Your task to perform on an android device: turn on priority inbox in the gmail app Image 0: 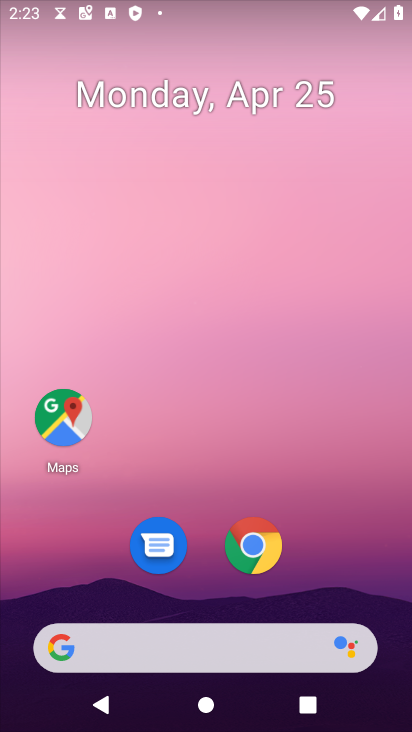
Step 0: drag from (32, 203) to (315, 167)
Your task to perform on an android device: turn on priority inbox in the gmail app Image 1: 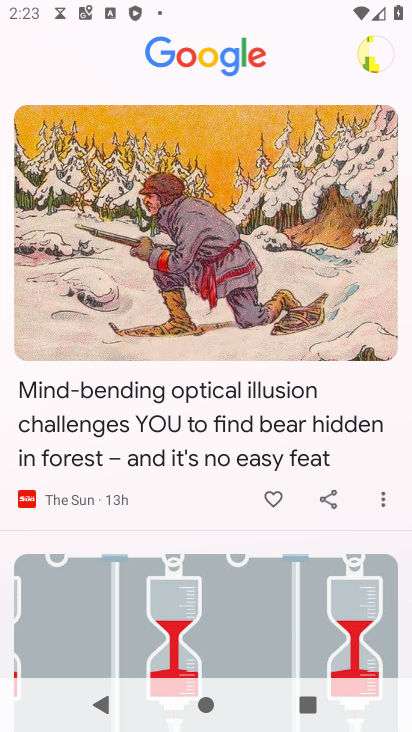
Step 1: press home button
Your task to perform on an android device: turn on priority inbox in the gmail app Image 2: 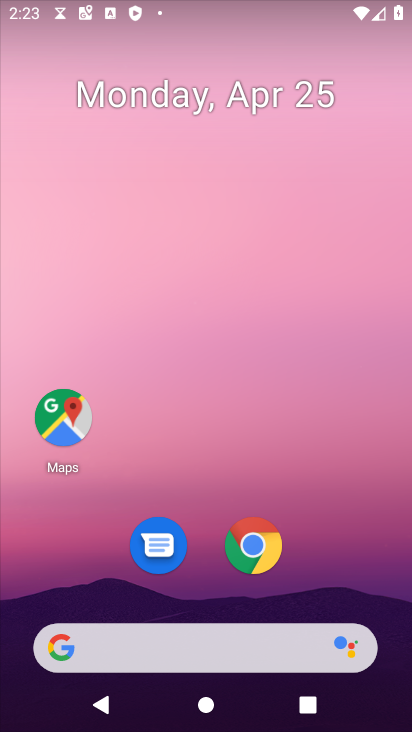
Step 2: drag from (197, 642) to (221, 10)
Your task to perform on an android device: turn on priority inbox in the gmail app Image 3: 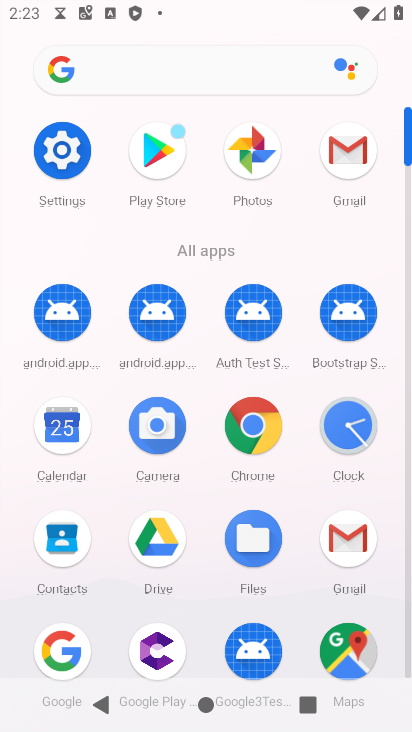
Step 3: click (358, 147)
Your task to perform on an android device: turn on priority inbox in the gmail app Image 4: 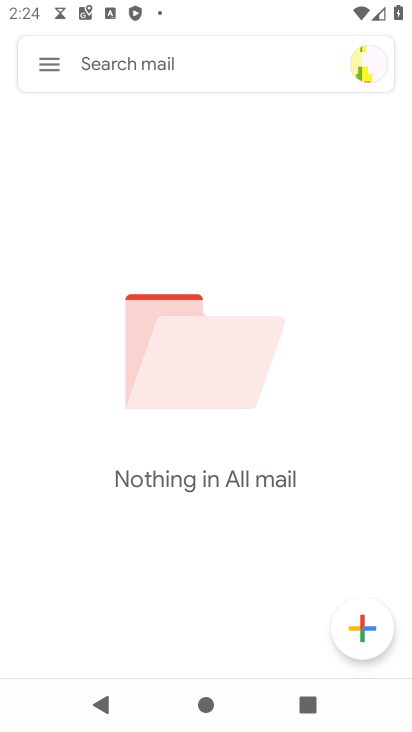
Step 4: click (38, 62)
Your task to perform on an android device: turn on priority inbox in the gmail app Image 5: 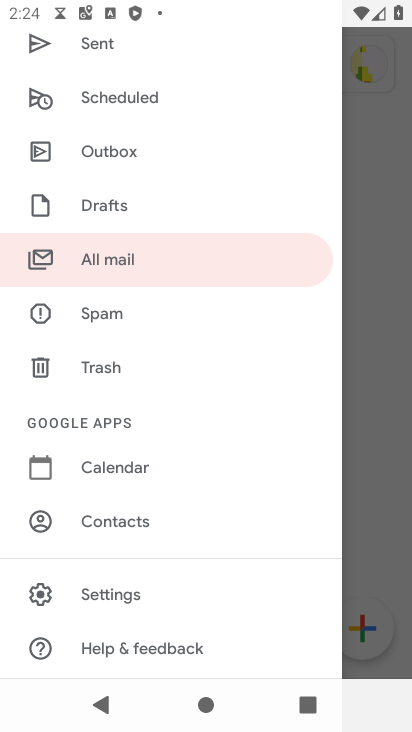
Step 5: click (99, 589)
Your task to perform on an android device: turn on priority inbox in the gmail app Image 6: 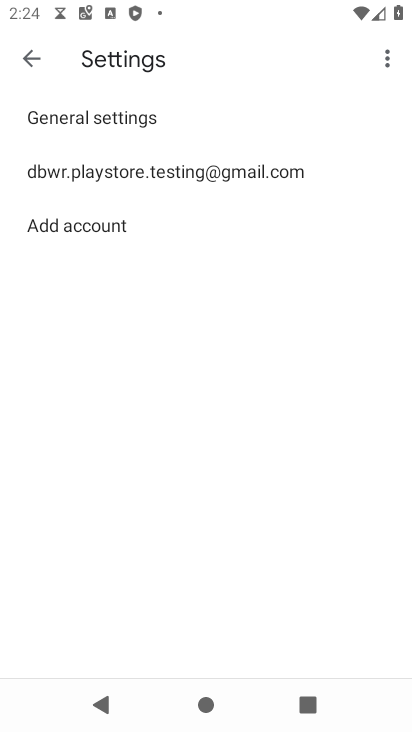
Step 6: click (119, 169)
Your task to perform on an android device: turn on priority inbox in the gmail app Image 7: 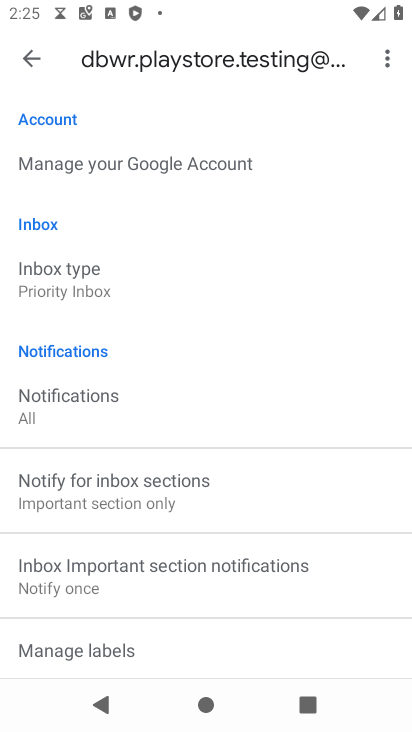
Step 7: click (116, 283)
Your task to perform on an android device: turn on priority inbox in the gmail app Image 8: 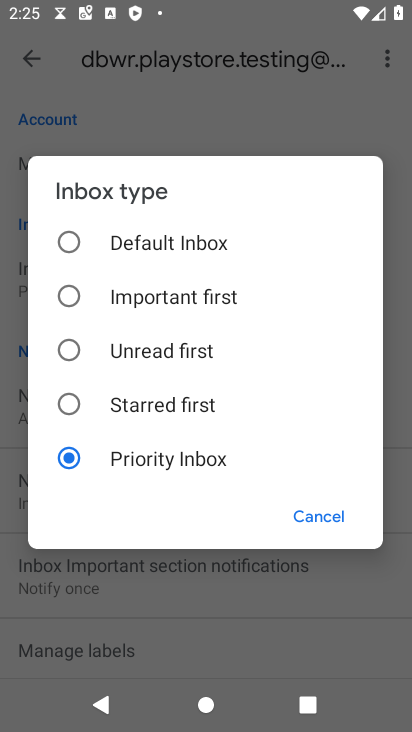
Step 8: click (141, 462)
Your task to perform on an android device: turn on priority inbox in the gmail app Image 9: 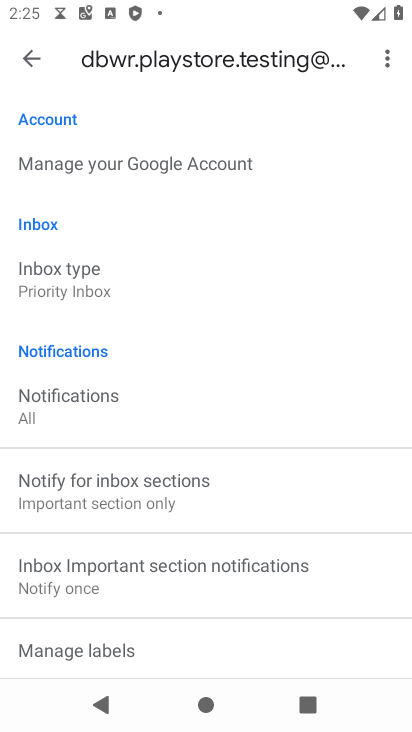
Step 9: task complete